Your task to perform on an android device: open wifi settings Image 0: 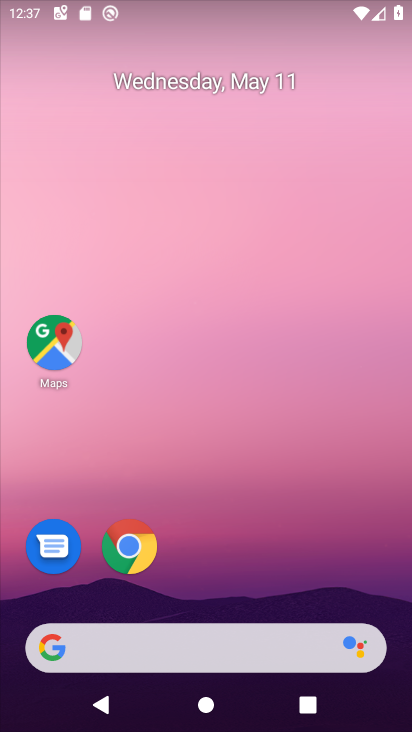
Step 0: drag from (246, 591) to (276, 198)
Your task to perform on an android device: open wifi settings Image 1: 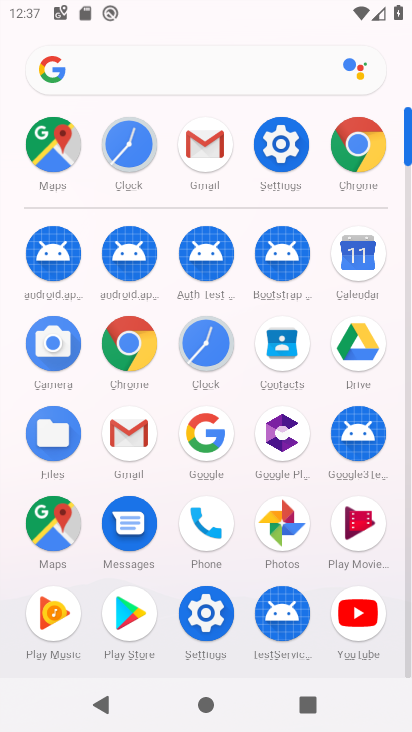
Step 1: click (292, 130)
Your task to perform on an android device: open wifi settings Image 2: 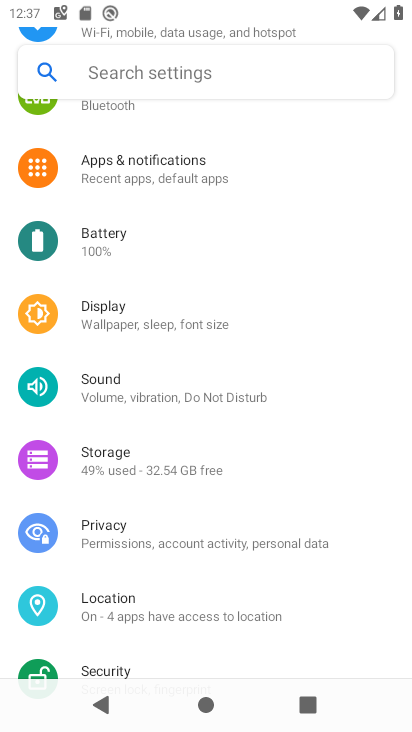
Step 2: drag from (175, 186) to (160, 500)
Your task to perform on an android device: open wifi settings Image 3: 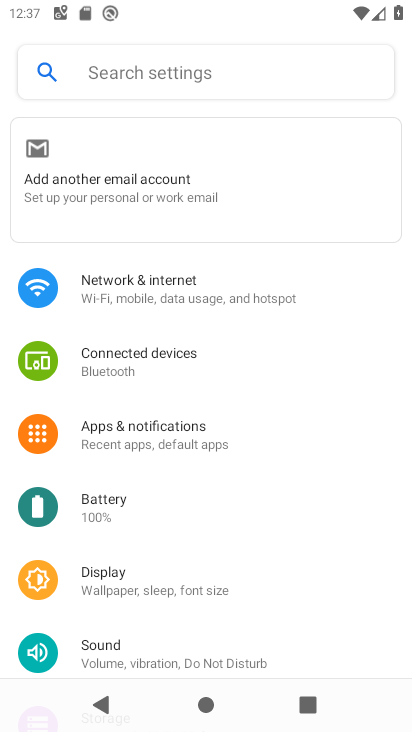
Step 3: click (163, 284)
Your task to perform on an android device: open wifi settings Image 4: 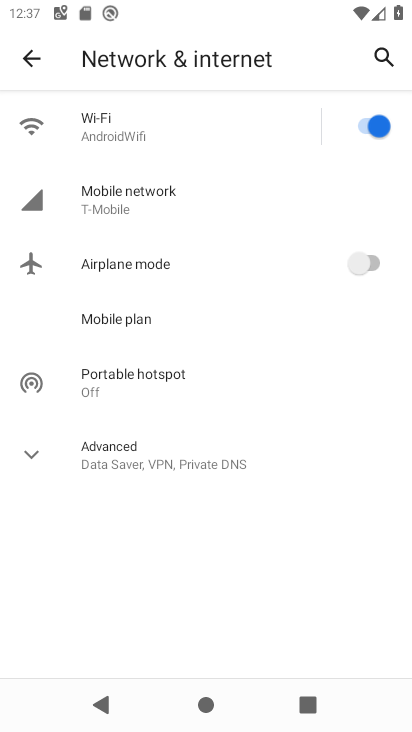
Step 4: click (152, 129)
Your task to perform on an android device: open wifi settings Image 5: 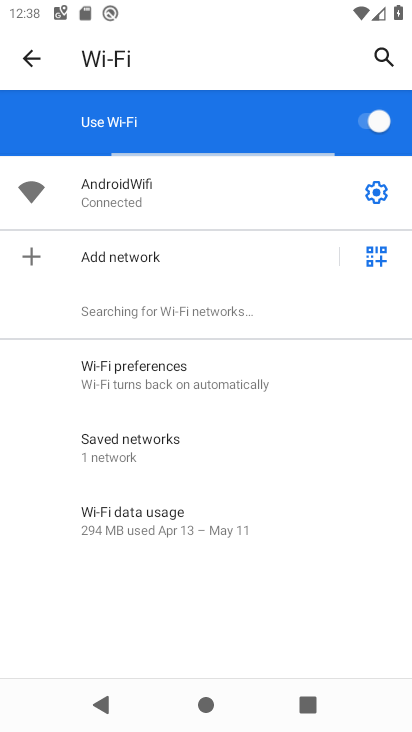
Step 5: task complete